Your task to perform on an android device: turn on airplane mode Image 0: 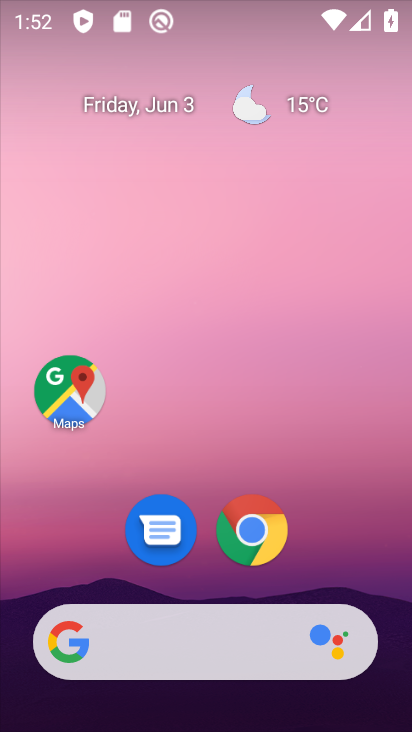
Step 0: drag from (286, 564) to (280, 152)
Your task to perform on an android device: turn on airplane mode Image 1: 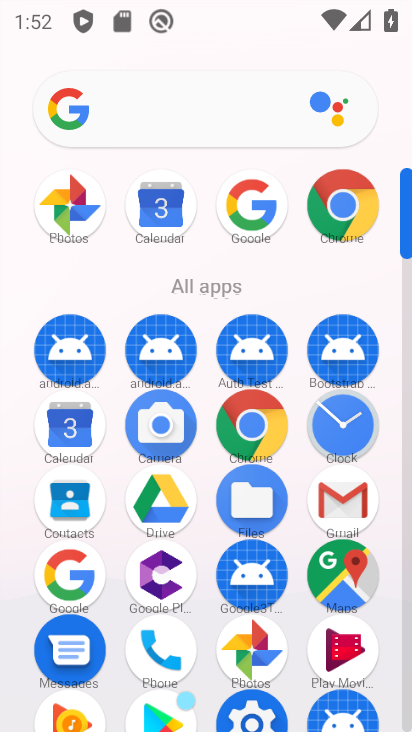
Step 1: drag from (296, 670) to (265, 314)
Your task to perform on an android device: turn on airplane mode Image 2: 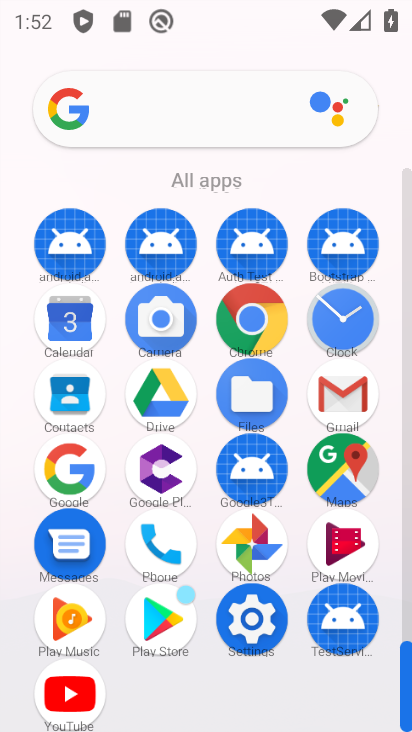
Step 2: click (245, 635)
Your task to perform on an android device: turn on airplane mode Image 3: 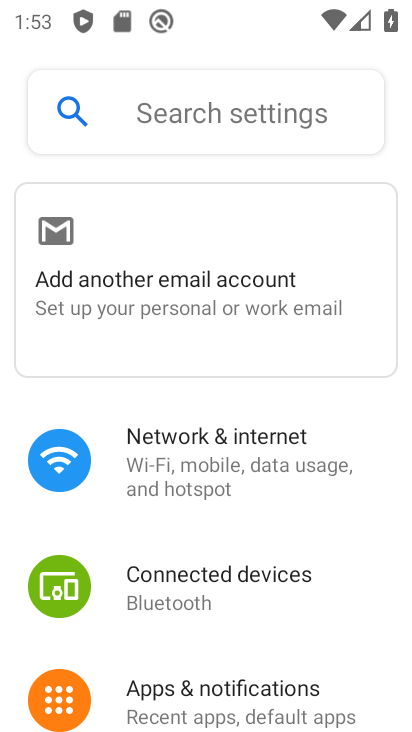
Step 3: click (212, 471)
Your task to perform on an android device: turn on airplane mode Image 4: 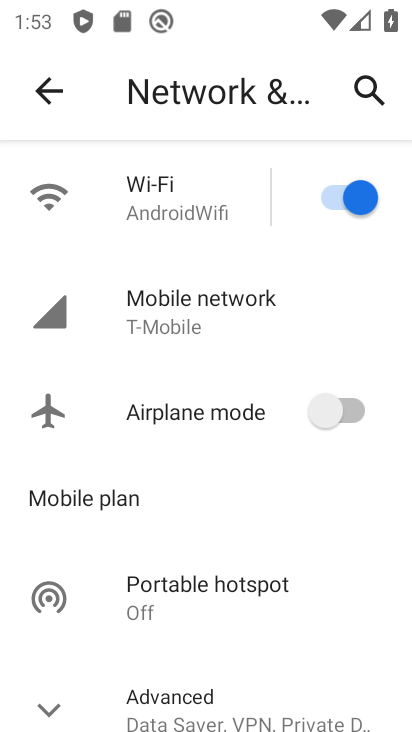
Step 4: click (361, 414)
Your task to perform on an android device: turn on airplane mode Image 5: 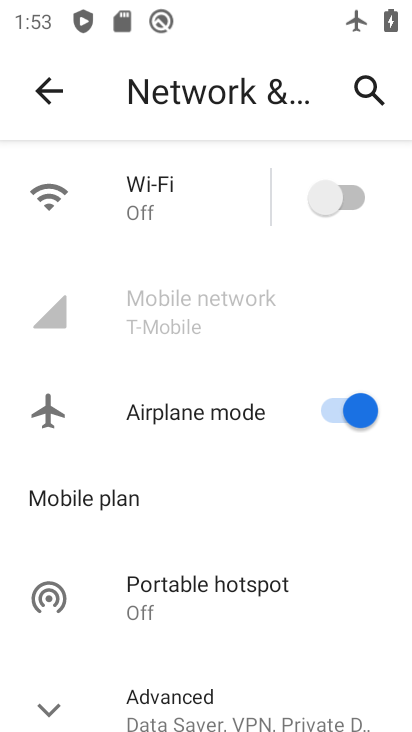
Step 5: task complete